Your task to perform on an android device: toggle airplane mode Image 0: 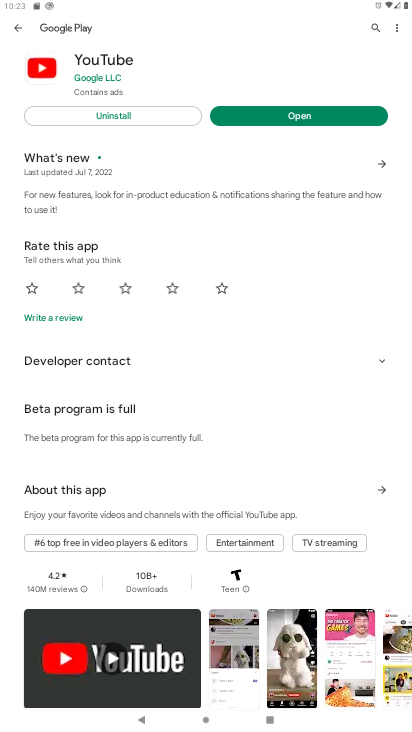
Step 0: click (162, 694)
Your task to perform on an android device: toggle airplane mode Image 1: 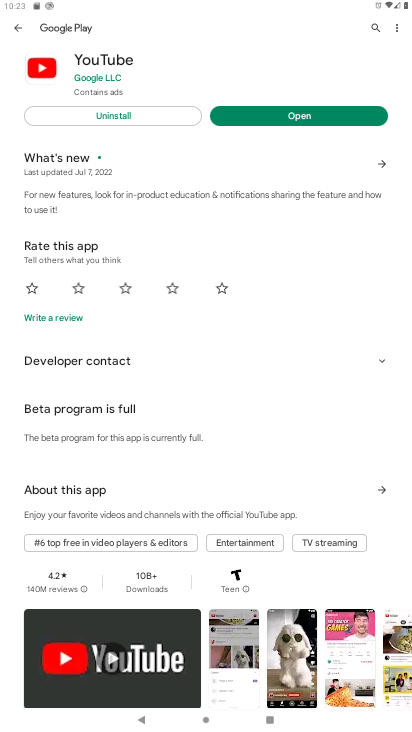
Step 1: press home button
Your task to perform on an android device: toggle airplane mode Image 2: 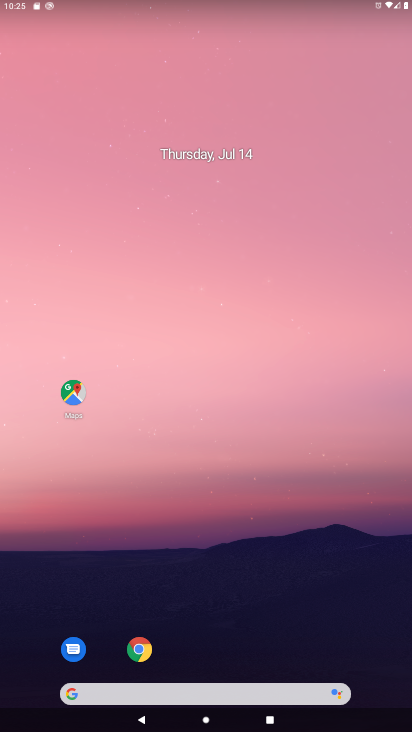
Step 2: drag from (223, 718) to (296, 565)
Your task to perform on an android device: toggle airplane mode Image 3: 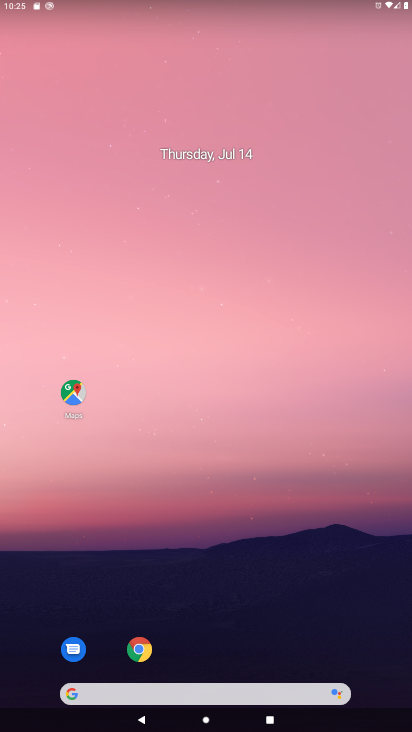
Step 3: drag from (244, 722) to (280, 24)
Your task to perform on an android device: toggle airplane mode Image 4: 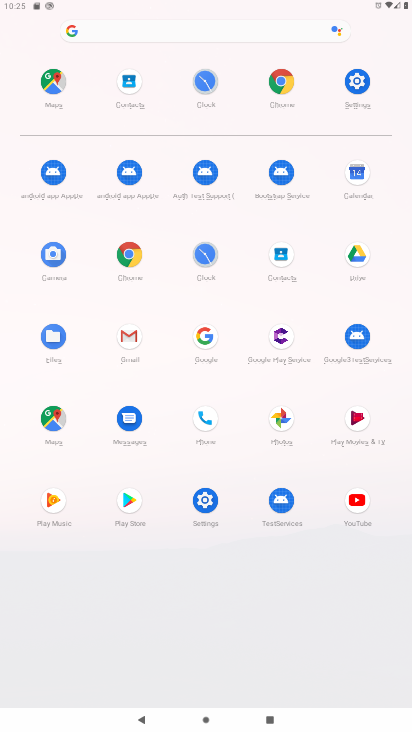
Step 4: click (361, 78)
Your task to perform on an android device: toggle airplane mode Image 5: 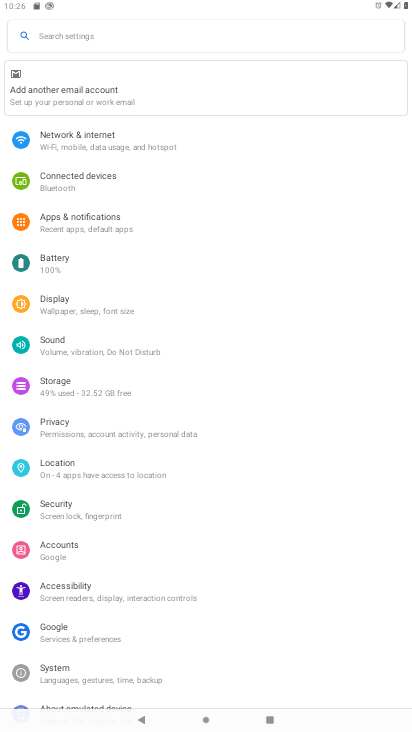
Step 5: click (198, 134)
Your task to perform on an android device: toggle airplane mode Image 6: 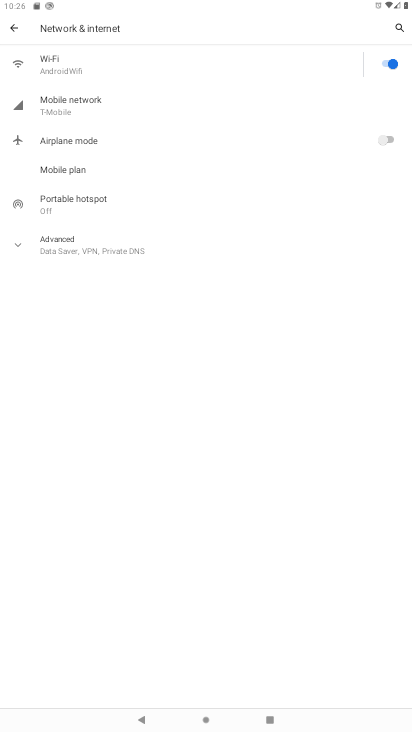
Step 6: click (381, 135)
Your task to perform on an android device: toggle airplane mode Image 7: 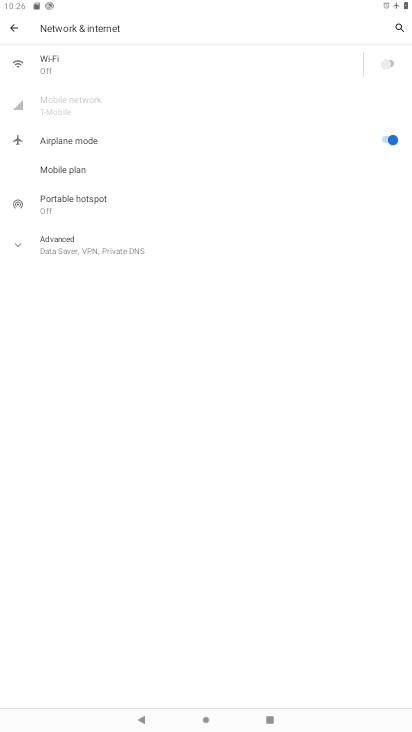
Step 7: task complete